Your task to perform on an android device: Open accessibility settings Image 0: 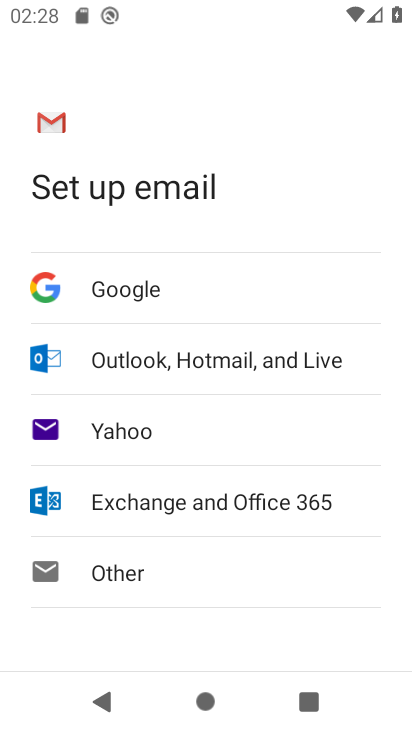
Step 0: press home button
Your task to perform on an android device: Open accessibility settings Image 1: 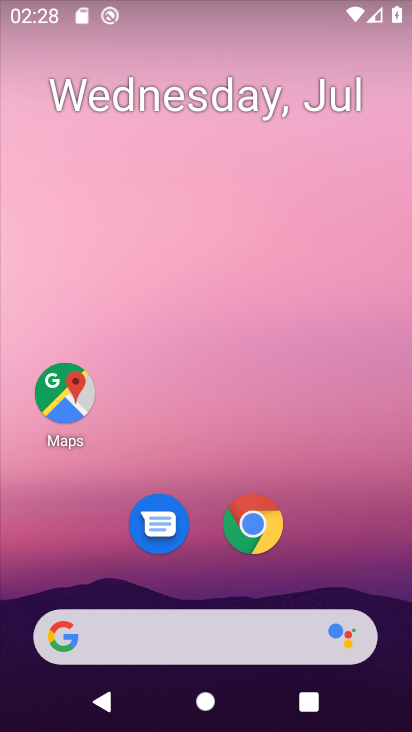
Step 1: drag from (305, 542) to (357, 86)
Your task to perform on an android device: Open accessibility settings Image 2: 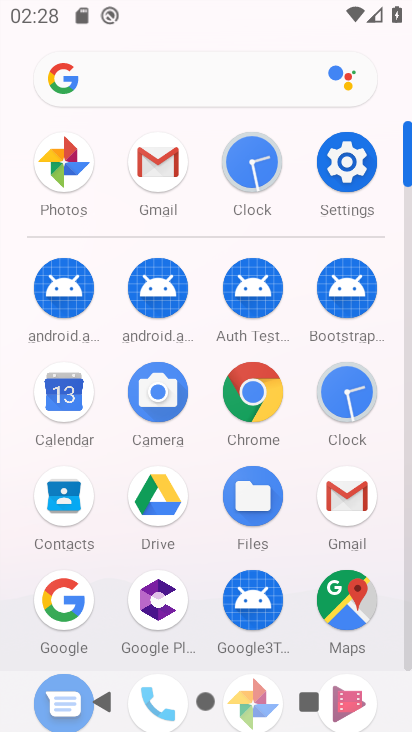
Step 2: click (346, 156)
Your task to perform on an android device: Open accessibility settings Image 3: 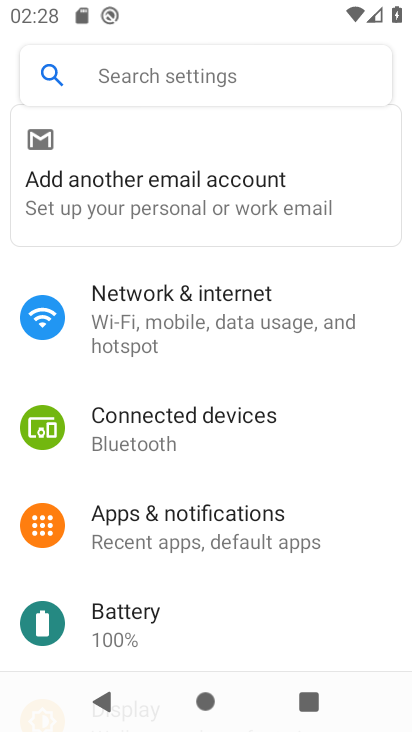
Step 3: drag from (201, 578) to (257, 12)
Your task to perform on an android device: Open accessibility settings Image 4: 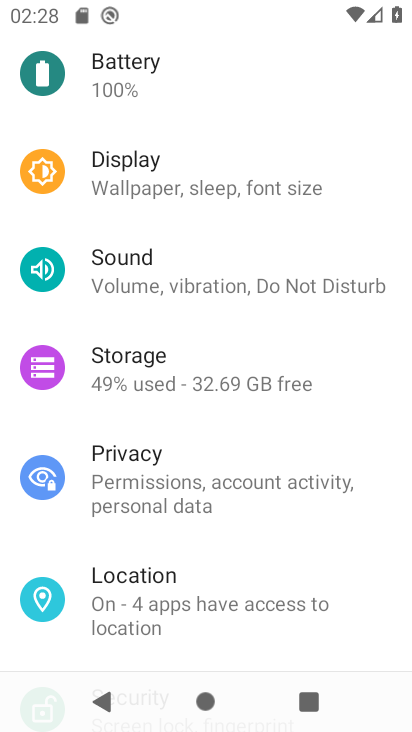
Step 4: drag from (208, 557) to (193, 1)
Your task to perform on an android device: Open accessibility settings Image 5: 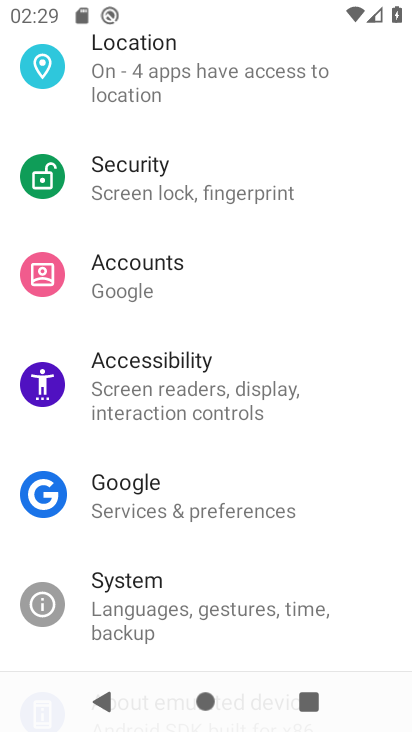
Step 5: click (200, 386)
Your task to perform on an android device: Open accessibility settings Image 6: 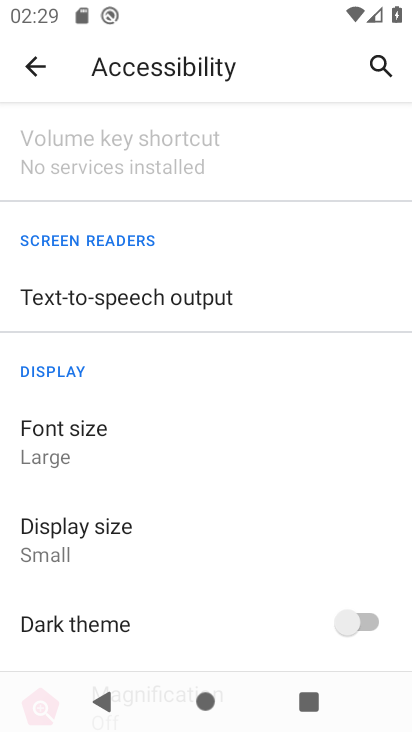
Step 6: task complete